Your task to perform on an android device: delete browsing data in the chrome app Image 0: 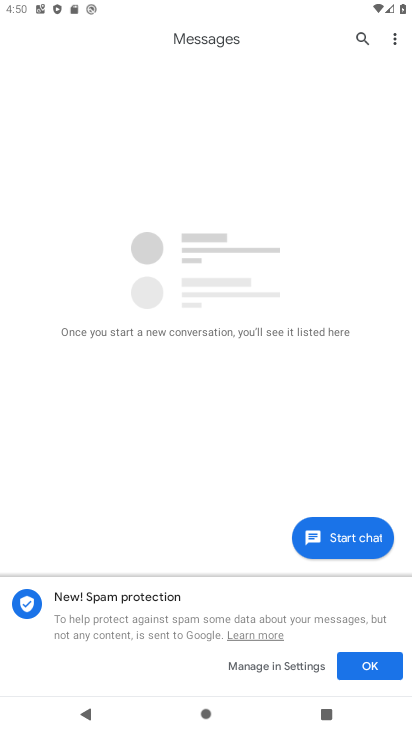
Step 0: drag from (164, 609) to (277, 206)
Your task to perform on an android device: delete browsing data in the chrome app Image 1: 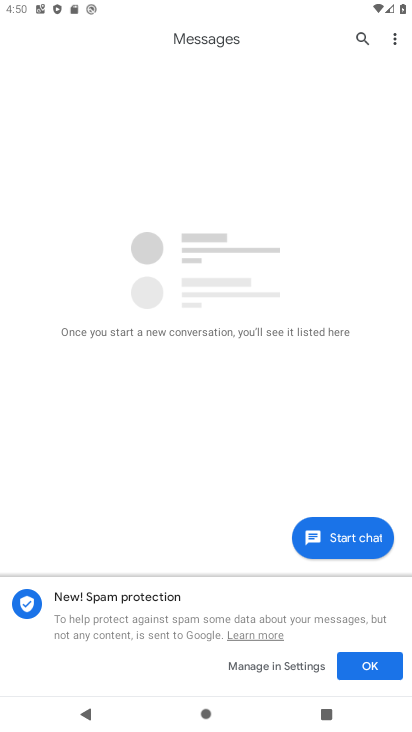
Step 1: press back button
Your task to perform on an android device: delete browsing data in the chrome app Image 2: 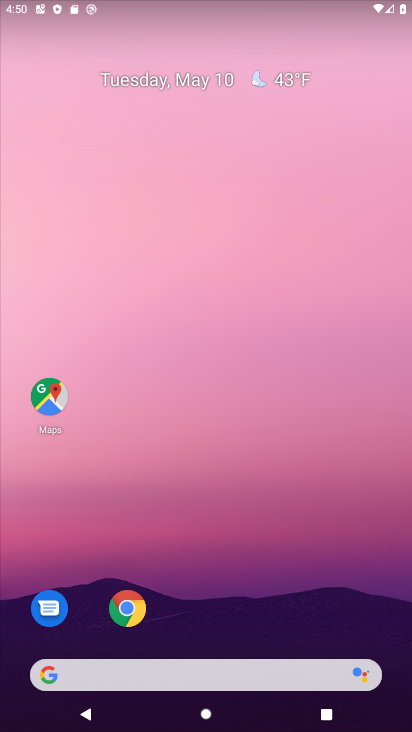
Step 2: drag from (173, 624) to (300, 155)
Your task to perform on an android device: delete browsing data in the chrome app Image 3: 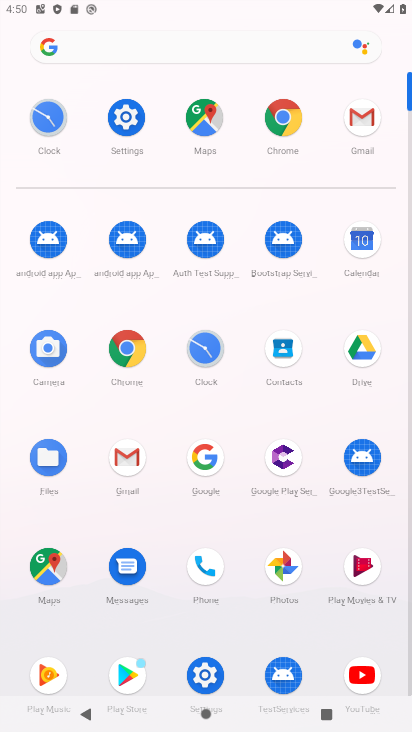
Step 3: click (280, 104)
Your task to perform on an android device: delete browsing data in the chrome app Image 4: 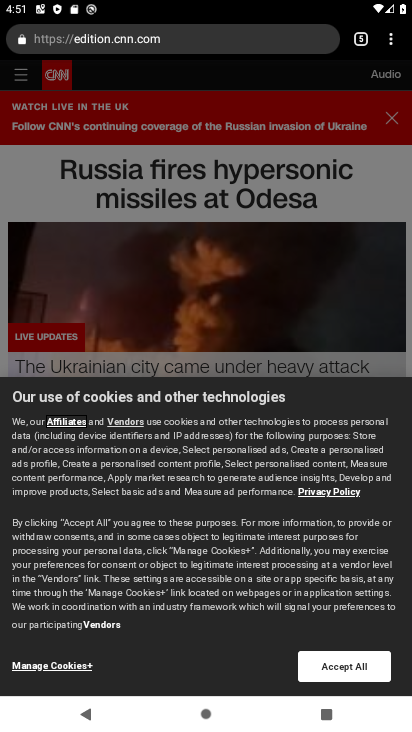
Step 4: drag from (391, 42) to (269, 209)
Your task to perform on an android device: delete browsing data in the chrome app Image 5: 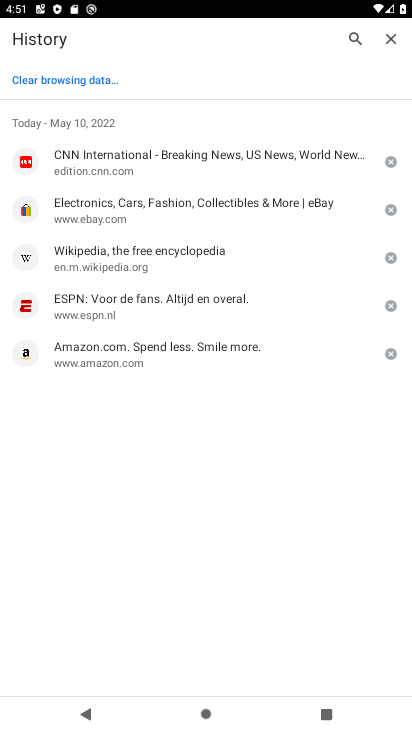
Step 5: click (64, 86)
Your task to perform on an android device: delete browsing data in the chrome app Image 6: 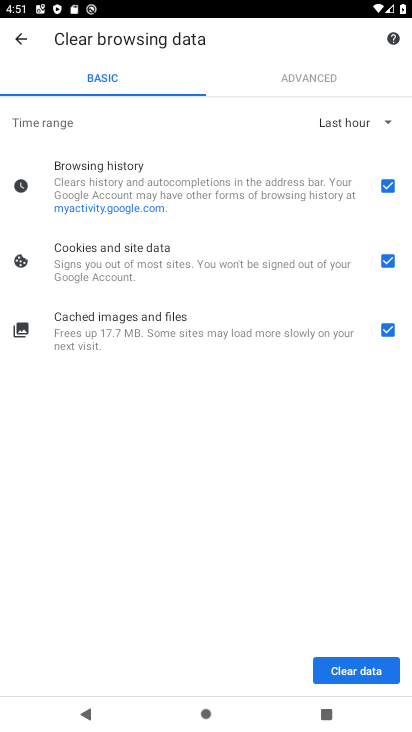
Step 6: click (361, 675)
Your task to perform on an android device: delete browsing data in the chrome app Image 7: 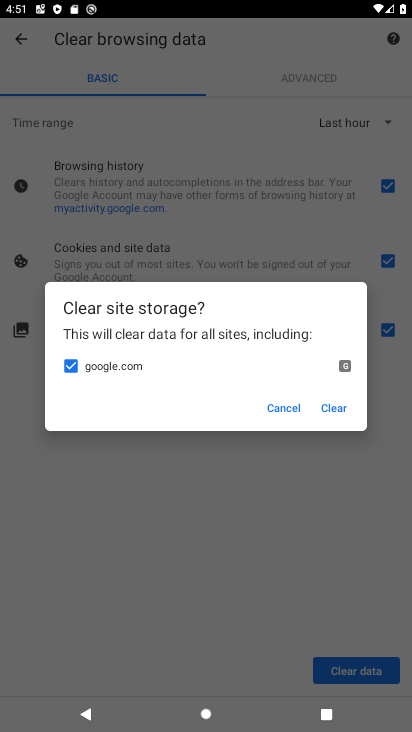
Step 7: click (333, 400)
Your task to perform on an android device: delete browsing data in the chrome app Image 8: 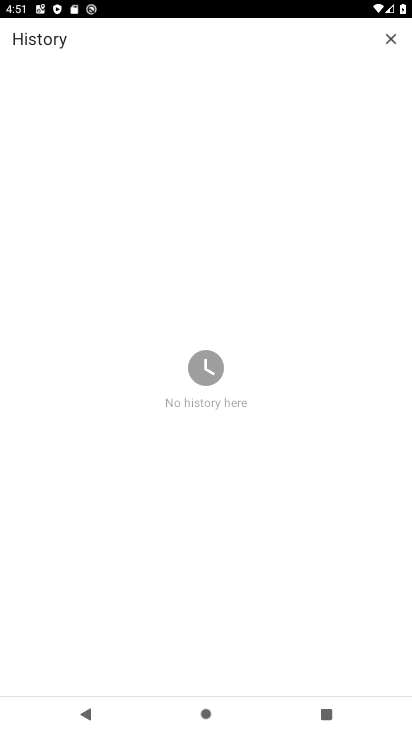
Step 8: task complete